Your task to perform on an android device: find which apps use the phone's location Image 0: 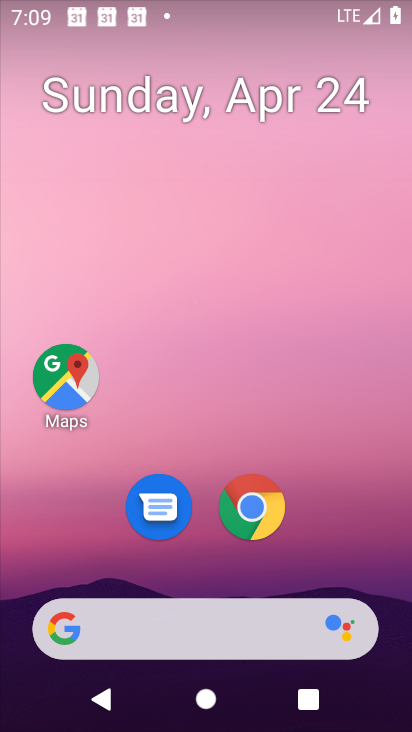
Step 0: click (331, 59)
Your task to perform on an android device: find which apps use the phone's location Image 1: 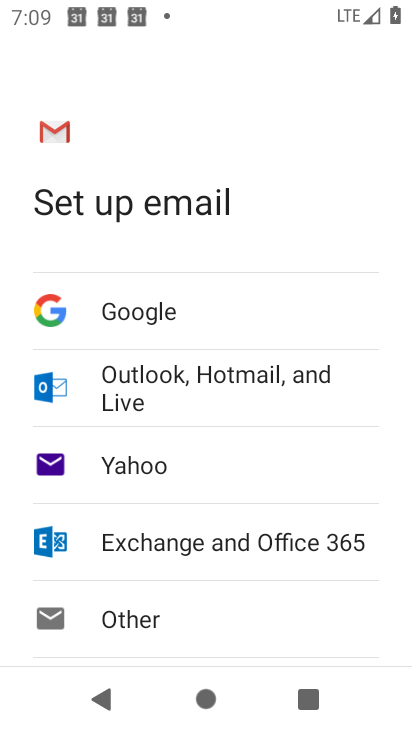
Step 1: click (197, 703)
Your task to perform on an android device: find which apps use the phone's location Image 2: 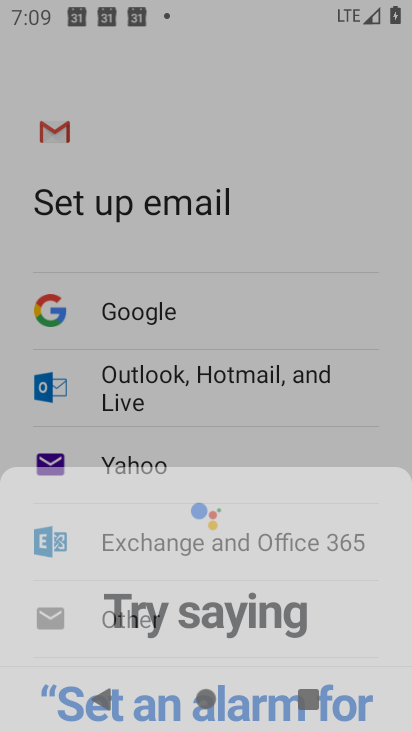
Step 2: click (202, 704)
Your task to perform on an android device: find which apps use the phone's location Image 3: 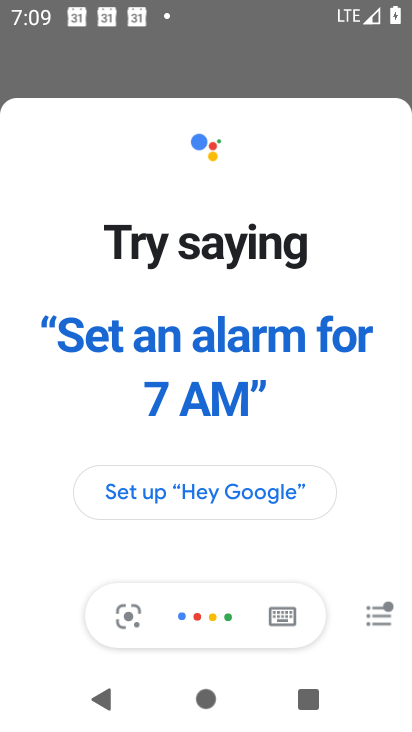
Step 3: click (107, 705)
Your task to perform on an android device: find which apps use the phone's location Image 4: 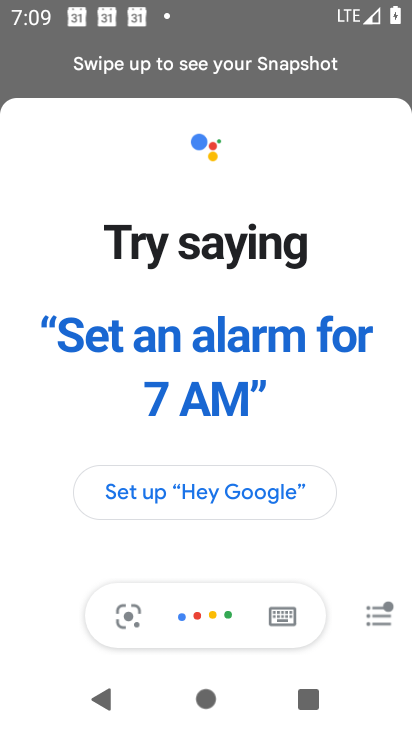
Step 4: press home button
Your task to perform on an android device: find which apps use the phone's location Image 5: 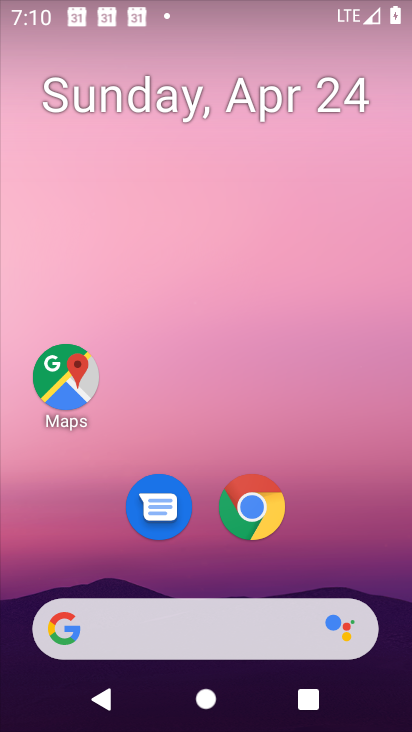
Step 5: drag from (353, 502) to (292, 7)
Your task to perform on an android device: find which apps use the phone's location Image 6: 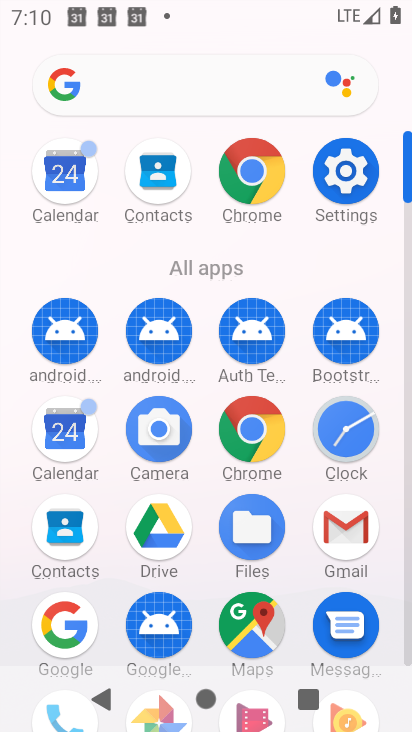
Step 6: click (351, 211)
Your task to perform on an android device: find which apps use the phone's location Image 7: 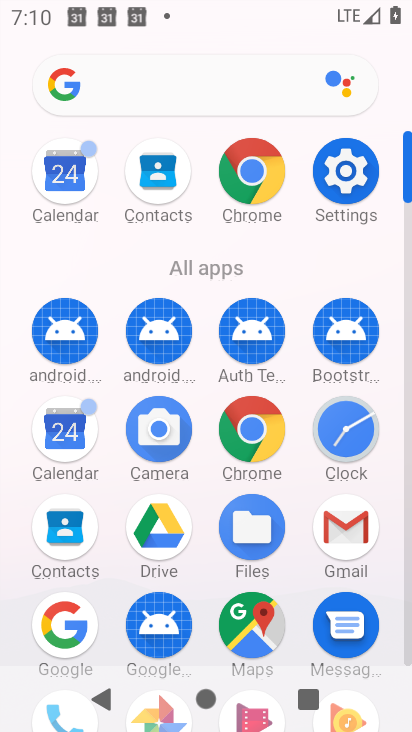
Step 7: click (347, 186)
Your task to perform on an android device: find which apps use the phone's location Image 8: 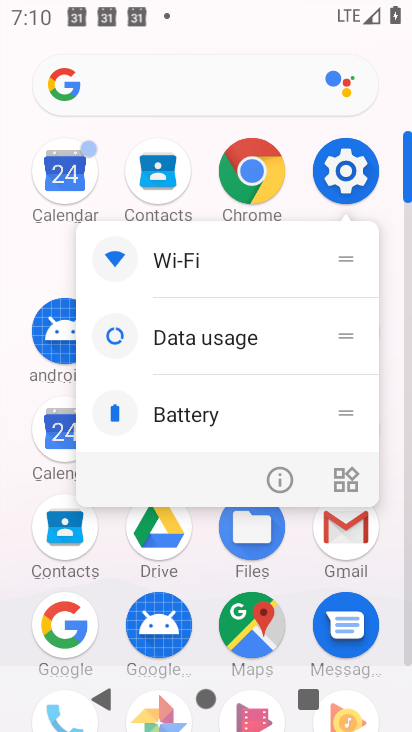
Step 8: click (347, 187)
Your task to perform on an android device: find which apps use the phone's location Image 9: 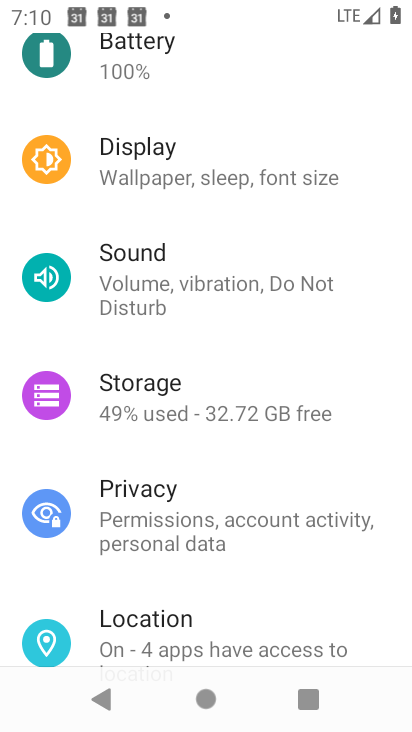
Step 9: click (203, 625)
Your task to perform on an android device: find which apps use the phone's location Image 10: 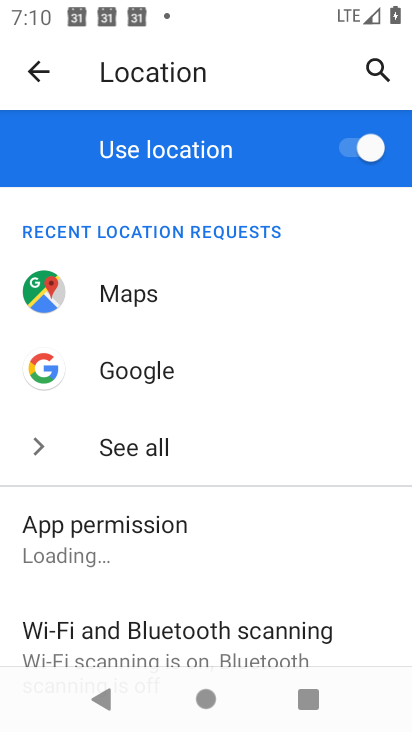
Step 10: click (83, 534)
Your task to perform on an android device: find which apps use the phone's location Image 11: 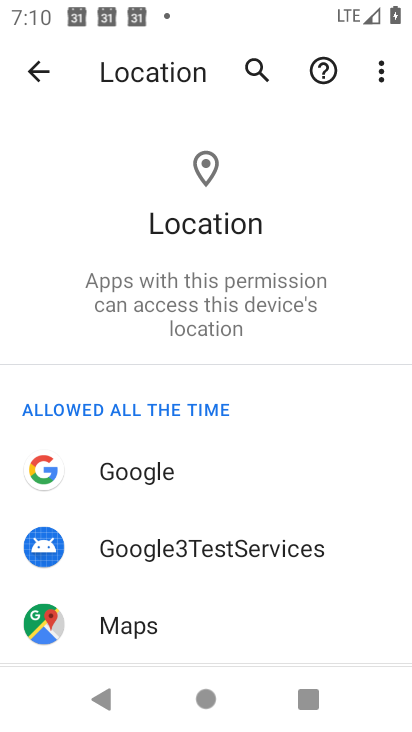
Step 11: task complete